Your task to perform on an android device: toggle notifications settings in the gmail app Image 0: 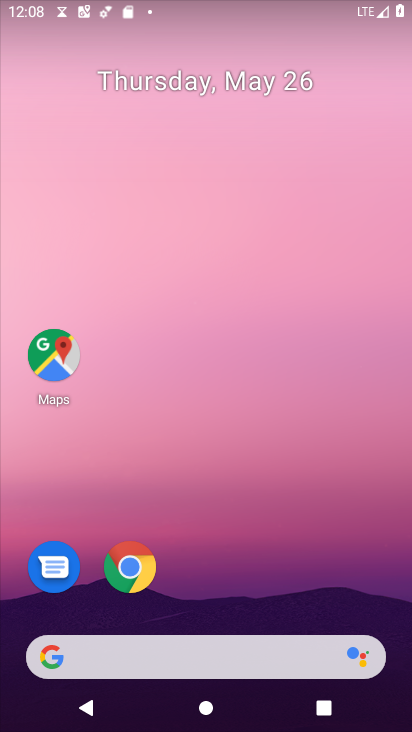
Step 0: drag from (177, 551) to (156, 89)
Your task to perform on an android device: toggle notifications settings in the gmail app Image 1: 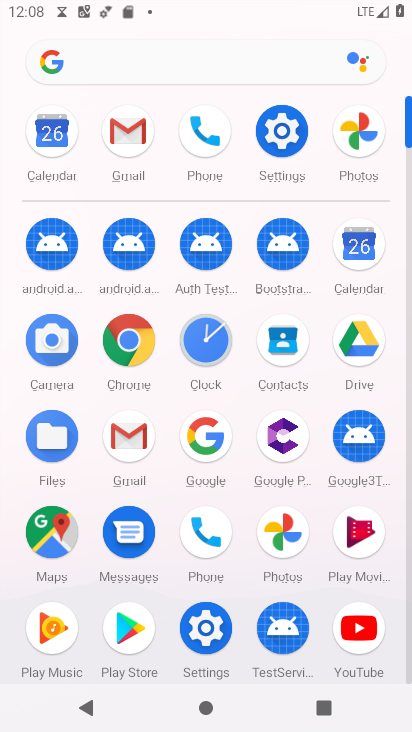
Step 1: click (125, 443)
Your task to perform on an android device: toggle notifications settings in the gmail app Image 2: 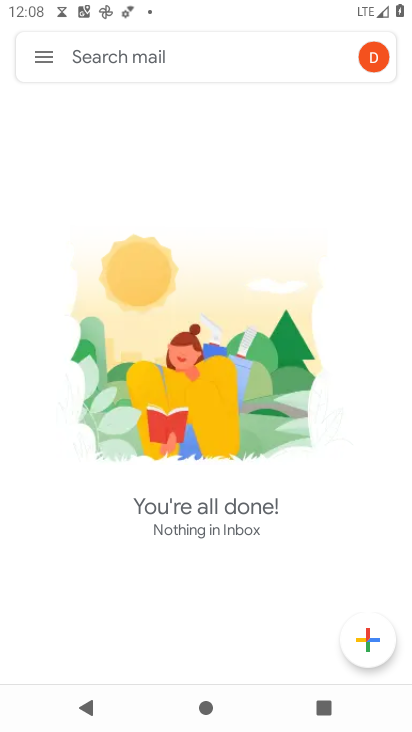
Step 2: click (58, 56)
Your task to perform on an android device: toggle notifications settings in the gmail app Image 3: 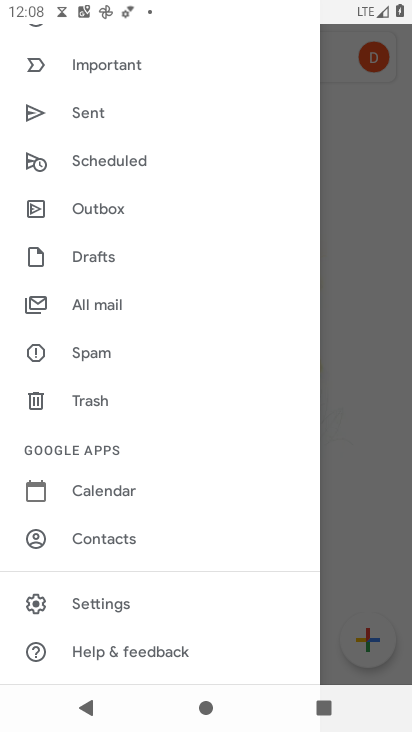
Step 3: drag from (154, 554) to (147, 202)
Your task to perform on an android device: toggle notifications settings in the gmail app Image 4: 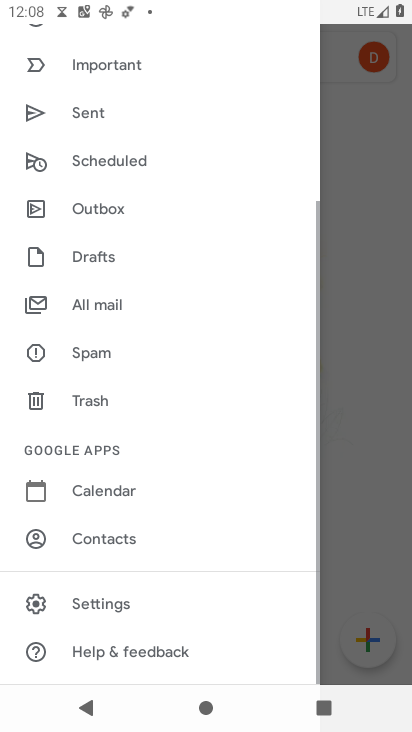
Step 4: drag from (158, 169) to (154, 556)
Your task to perform on an android device: toggle notifications settings in the gmail app Image 5: 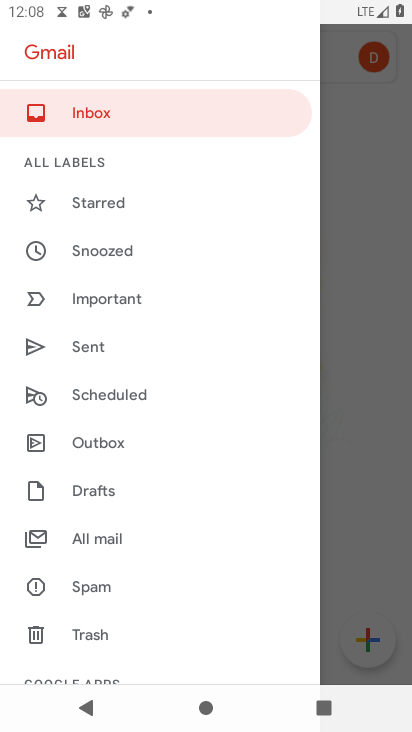
Step 5: drag from (186, 618) to (182, 180)
Your task to perform on an android device: toggle notifications settings in the gmail app Image 6: 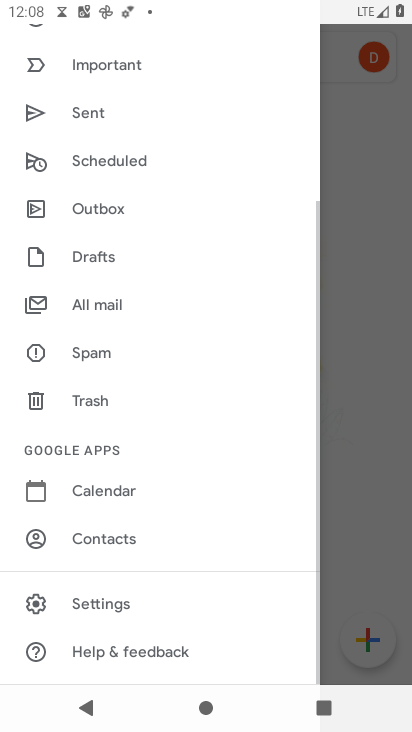
Step 6: click (133, 590)
Your task to perform on an android device: toggle notifications settings in the gmail app Image 7: 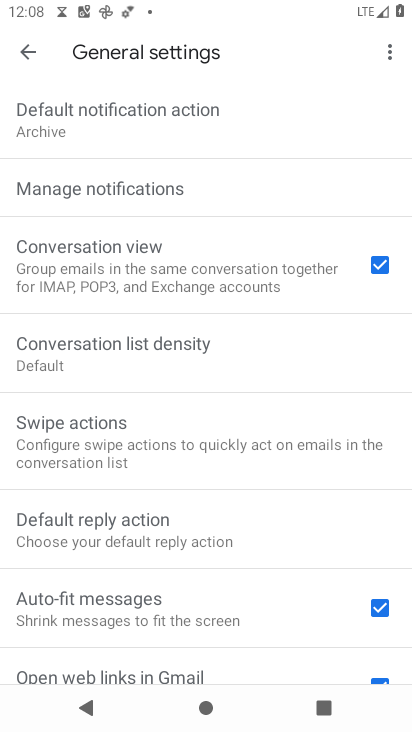
Step 7: click (153, 204)
Your task to perform on an android device: toggle notifications settings in the gmail app Image 8: 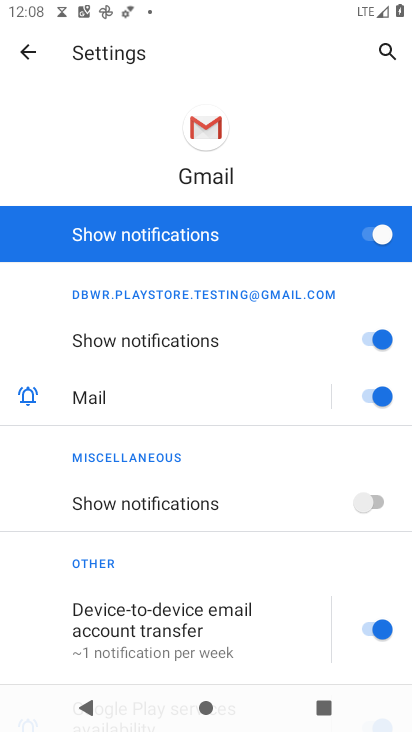
Step 8: click (400, 232)
Your task to perform on an android device: toggle notifications settings in the gmail app Image 9: 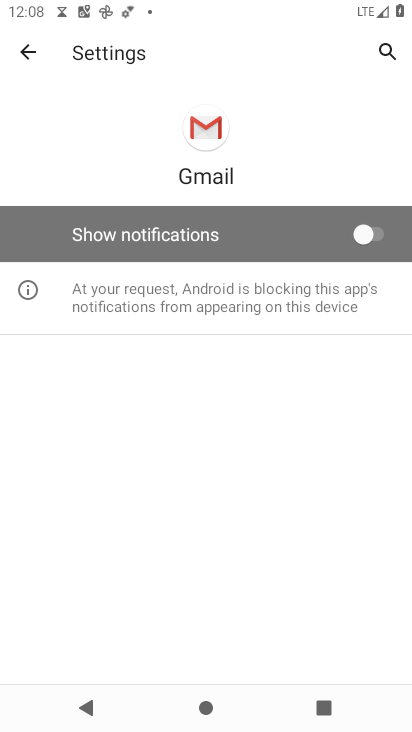
Step 9: task complete